Your task to perform on an android device: turn off notifications in google photos Image 0: 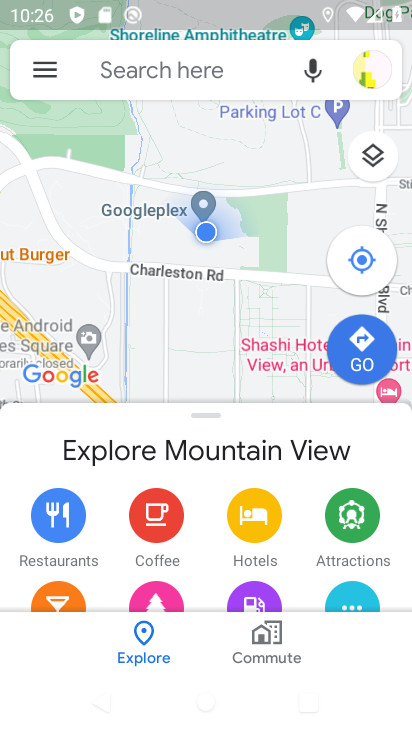
Step 0: click (126, 61)
Your task to perform on an android device: turn off notifications in google photos Image 1: 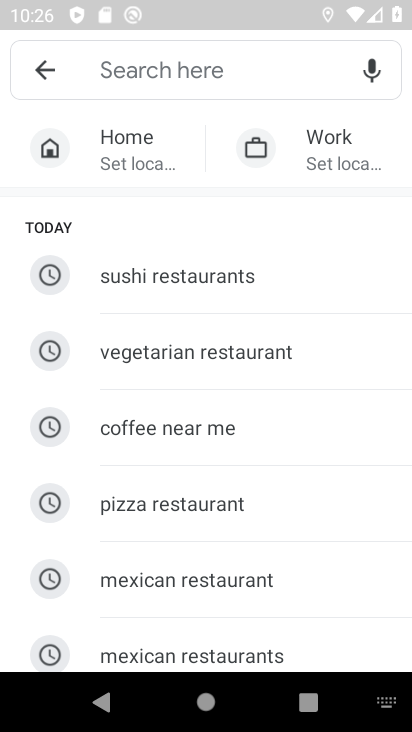
Step 1: click (25, 55)
Your task to perform on an android device: turn off notifications in google photos Image 2: 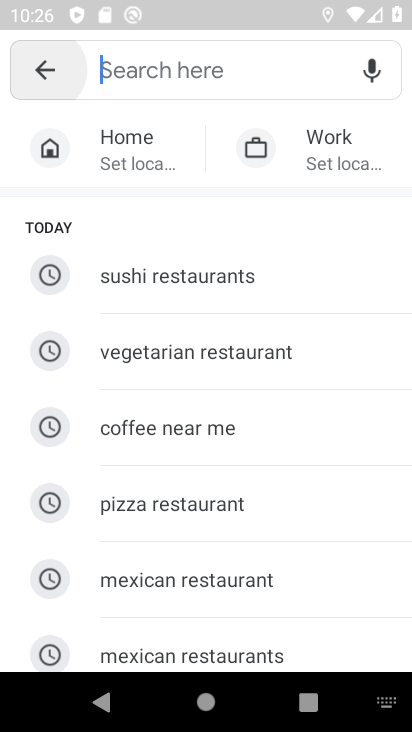
Step 2: click (39, 67)
Your task to perform on an android device: turn off notifications in google photos Image 3: 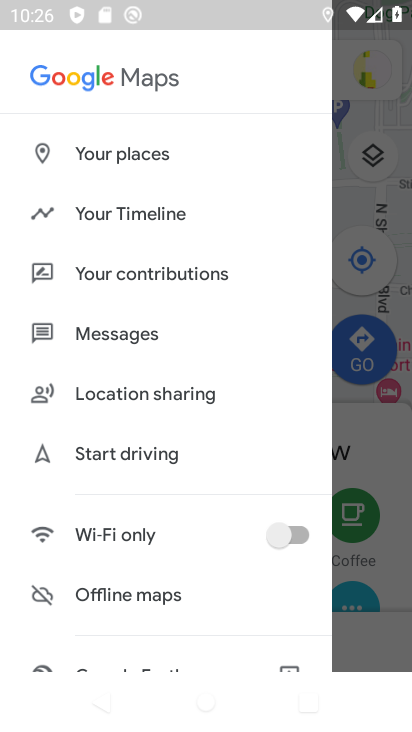
Step 3: click (399, 517)
Your task to perform on an android device: turn off notifications in google photos Image 4: 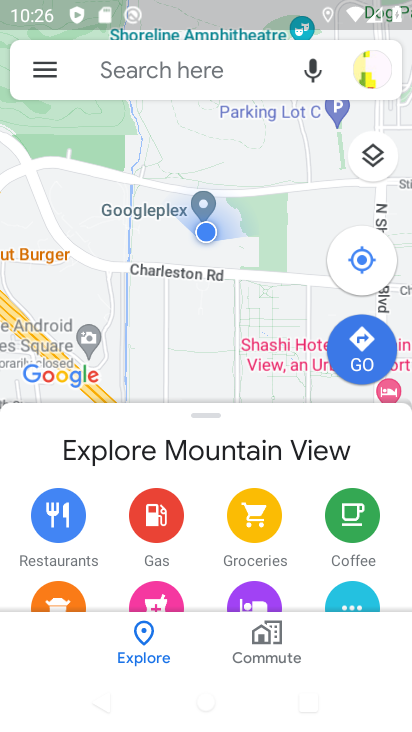
Step 4: press home button
Your task to perform on an android device: turn off notifications in google photos Image 5: 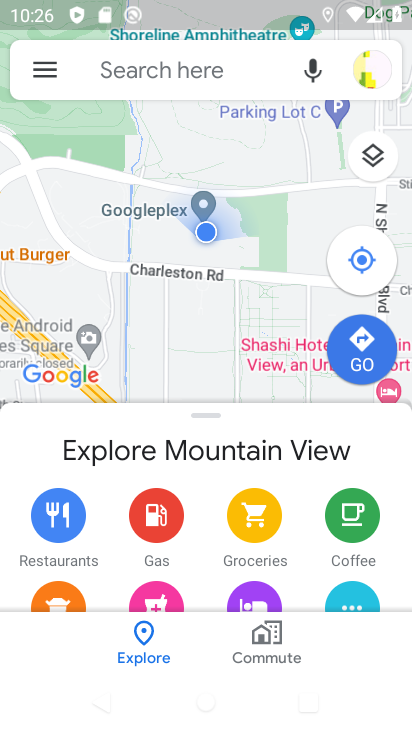
Step 5: press home button
Your task to perform on an android device: turn off notifications in google photos Image 6: 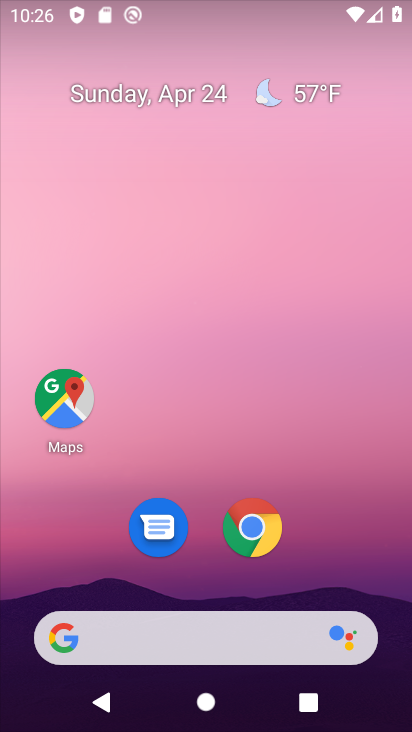
Step 6: press home button
Your task to perform on an android device: turn off notifications in google photos Image 7: 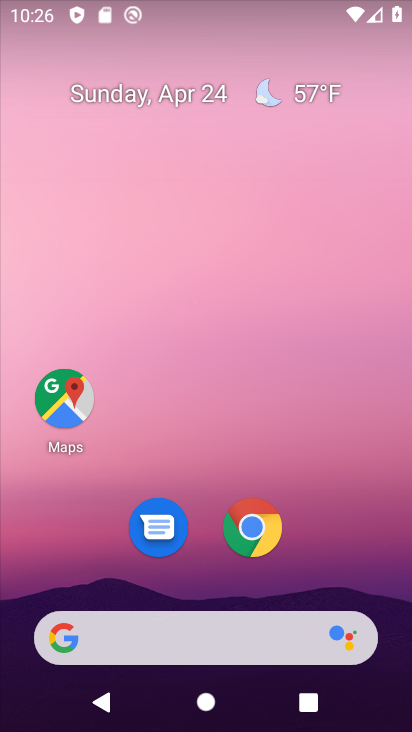
Step 7: drag from (256, 683) to (110, 14)
Your task to perform on an android device: turn off notifications in google photos Image 8: 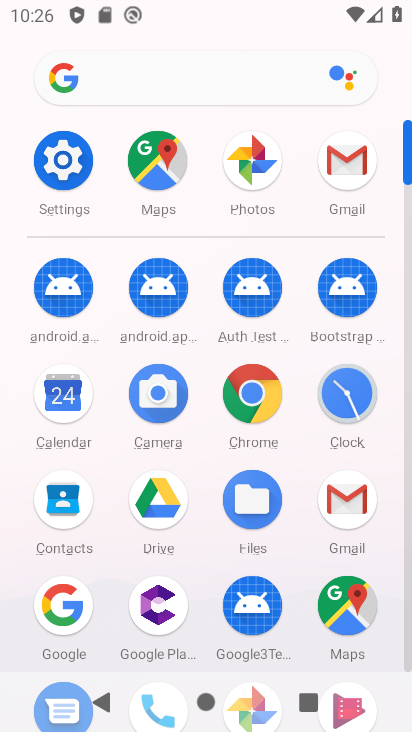
Step 8: drag from (277, 480) to (190, 51)
Your task to perform on an android device: turn off notifications in google photos Image 9: 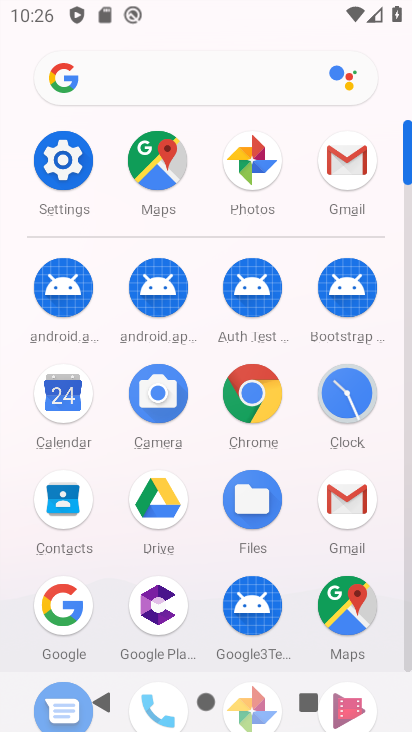
Step 9: drag from (286, 462) to (227, 21)
Your task to perform on an android device: turn off notifications in google photos Image 10: 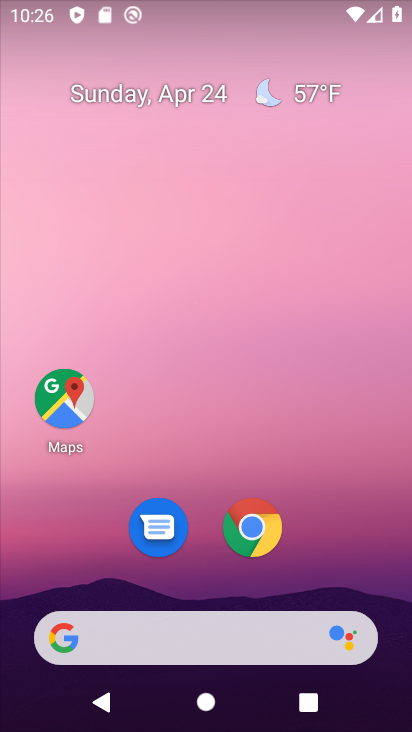
Step 10: drag from (274, 642) to (240, 57)
Your task to perform on an android device: turn off notifications in google photos Image 11: 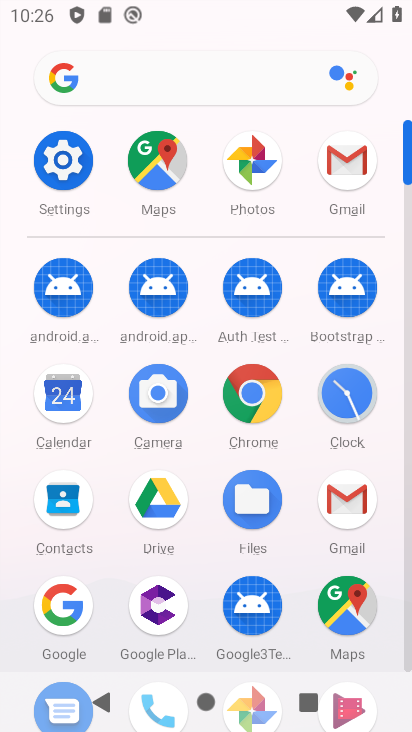
Step 11: drag from (312, 467) to (219, 170)
Your task to perform on an android device: turn off notifications in google photos Image 12: 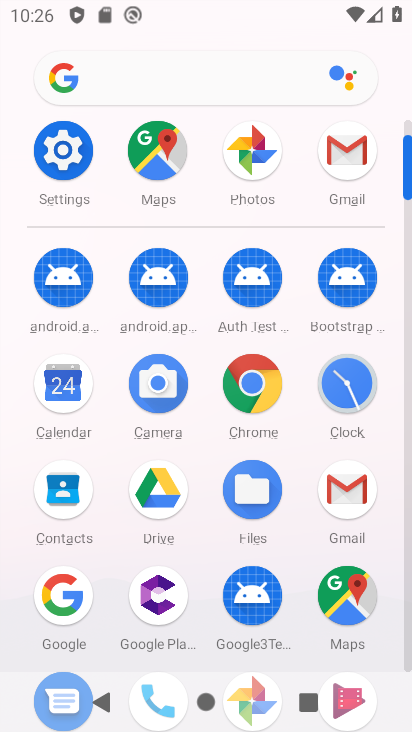
Step 12: click (251, 158)
Your task to perform on an android device: turn off notifications in google photos Image 13: 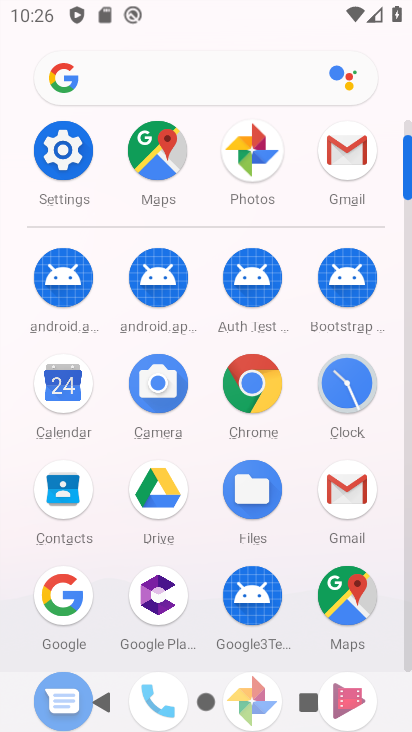
Step 13: click (259, 164)
Your task to perform on an android device: turn off notifications in google photos Image 14: 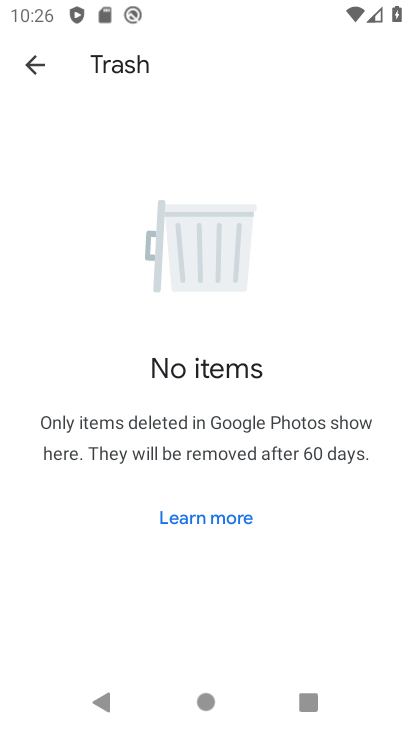
Step 14: click (30, 60)
Your task to perform on an android device: turn off notifications in google photos Image 15: 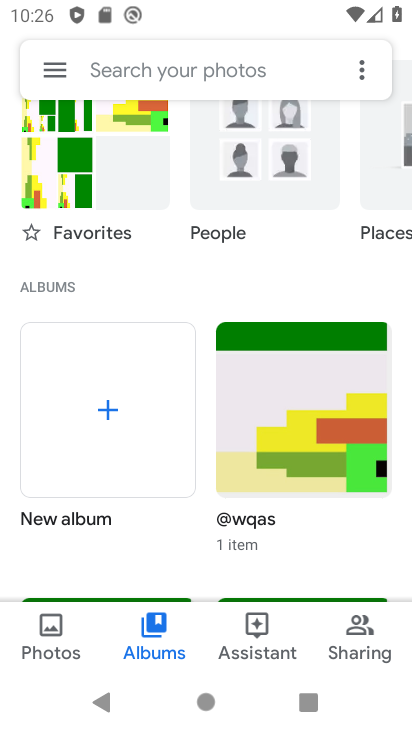
Step 15: press home button
Your task to perform on an android device: turn off notifications in google photos Image 16: 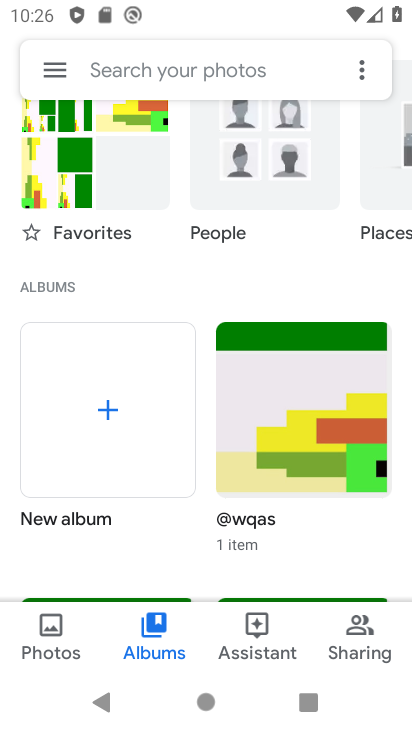
Step 16: press home button
Your task to perform on an android device: turn off notifications in google photos Image 17: 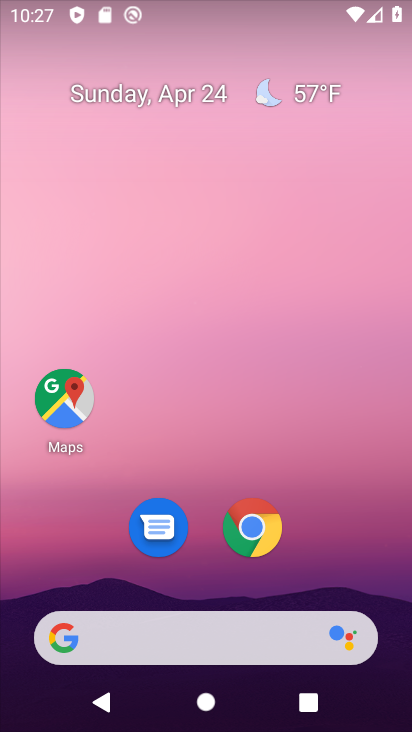
Step 17: drag from (267, 664) to (101, 30)
Your task to perform on an android device: turn off notifications in google photos Image 18: 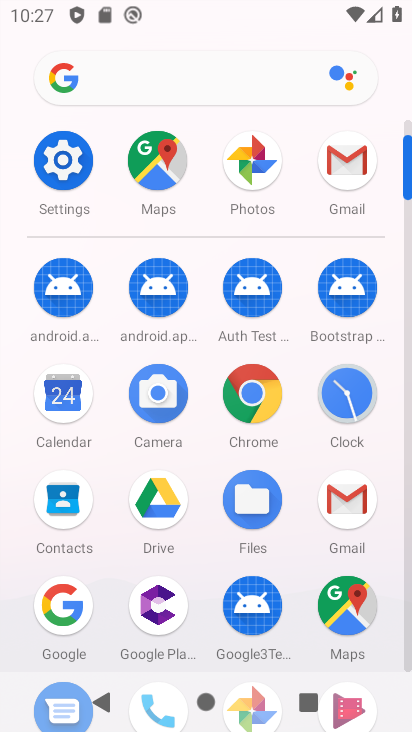
Step 18: click (259, 158)
Your task to perform on an android device: turn off notifications in google photos Image 19: 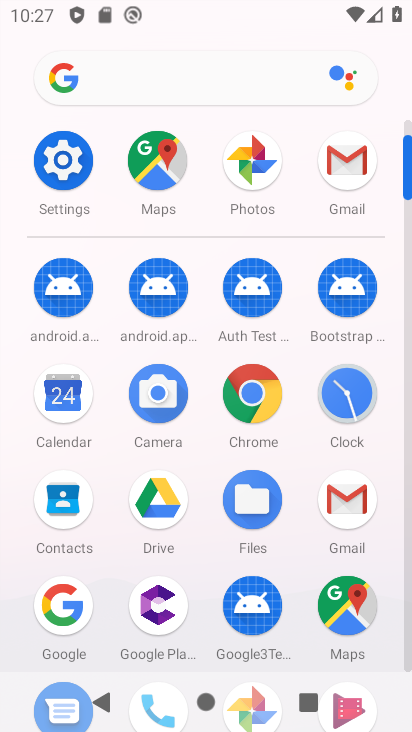
Step 19: click (259, 158)
Your task to perform on an android device: turn off notifications in google photos Image 20: 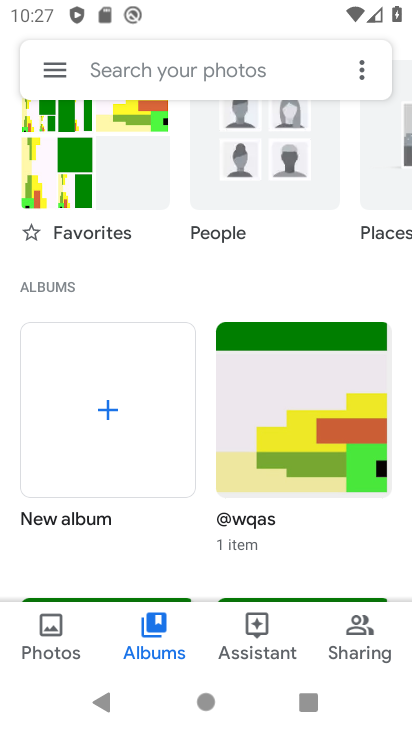
Step 20: drag from (221, 506) to (144, 25)
Your task to perform on an android device: turn off notifications in google photos Image 21: 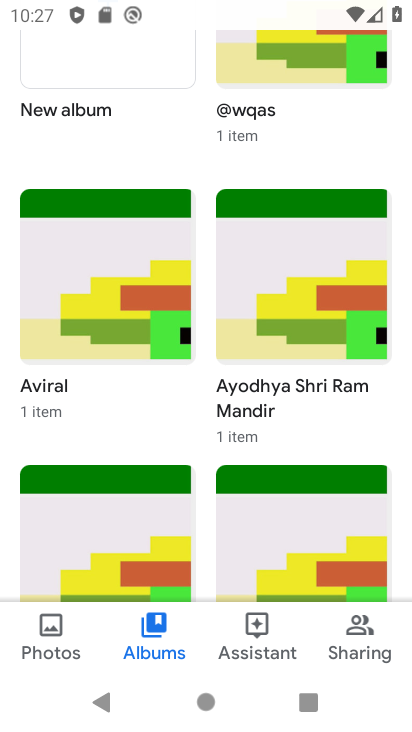
Step 21: drag from (212, 317) to (176, 48)
Your task to perform on an android device: turn off notifications in google photos Image 22: 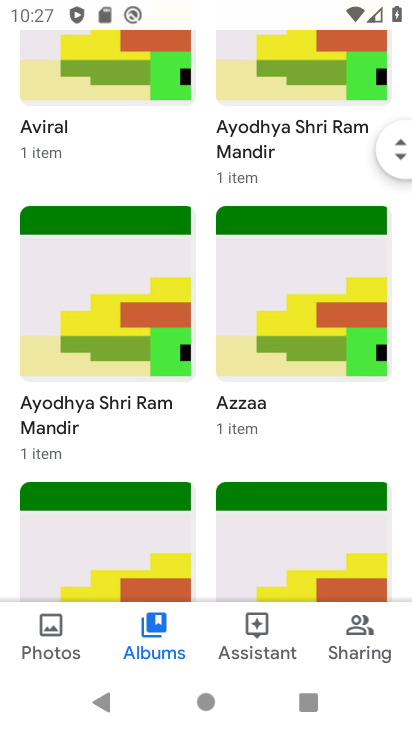
Step 22: drag from (237, 433) to (201, 195)
Your task to perform on an android device: turn off notifications in google photos Image 23: 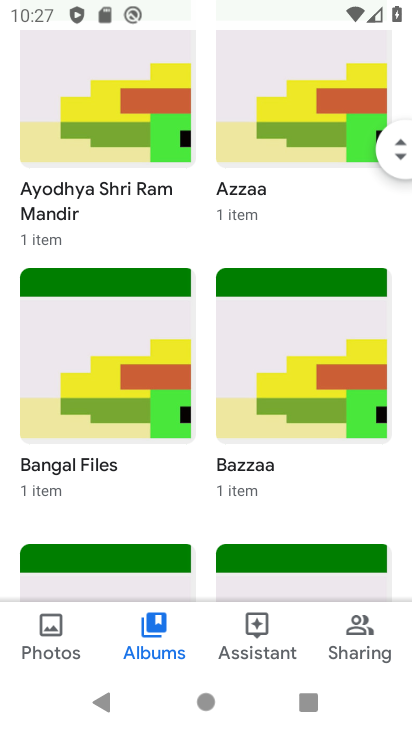
Step 23: drag from (212, 358) to (173, 71)
Your task to perform on an android device: turn off notifications in google photos Image 24: 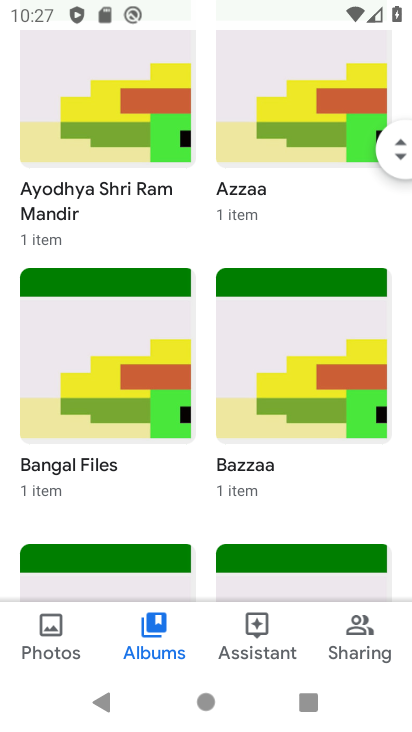
Step 24: drag from (202, 395) to (160, 38)
Your task to perform on an android device: turn off notifications in google photos Image 25: 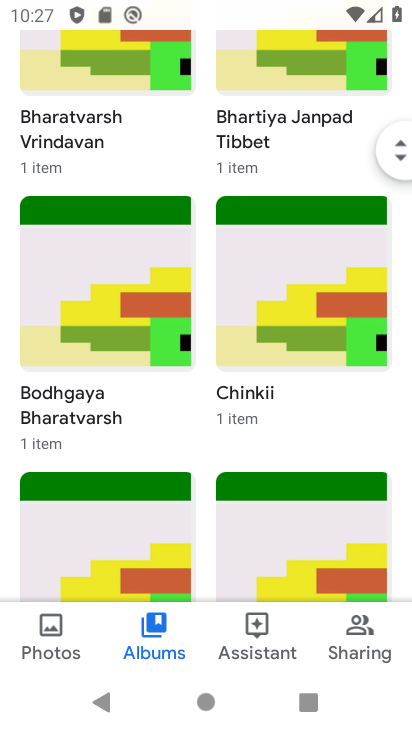
Step 25: drag from (174, 297) to (255, 574)
Your task to perform on an android device: turn off notifications in google photos Image 26: 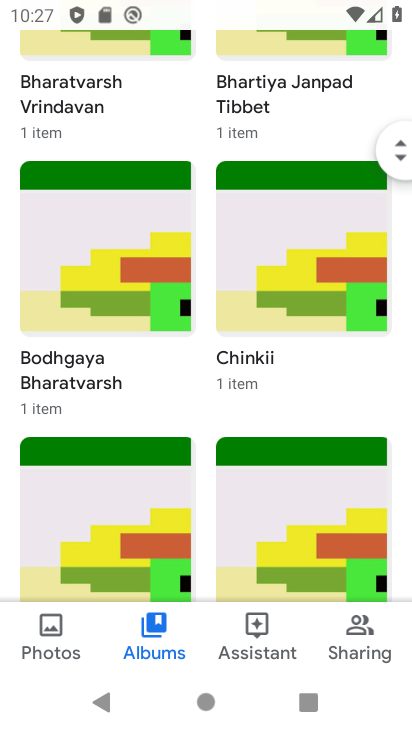
Step 26: press home button
Your task to perform on an android device: turn off notifications in google photos Image 27: 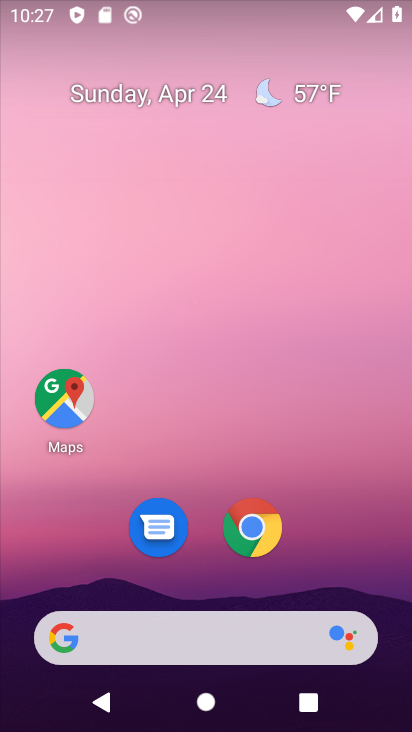
Step 27: drag from (232, 642) to (123, 1)
Your task to perform on an android device: turn off notifications in google photos Image 28: 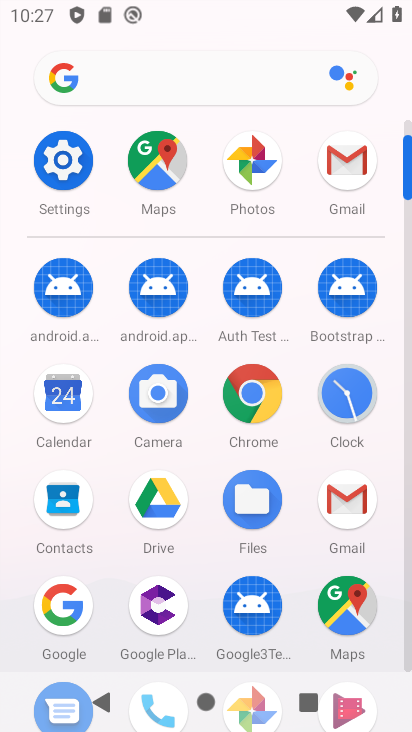
Step 28: click (247, 156)
Your task to perform on an android device: turn off notifications in google photos Image 29: 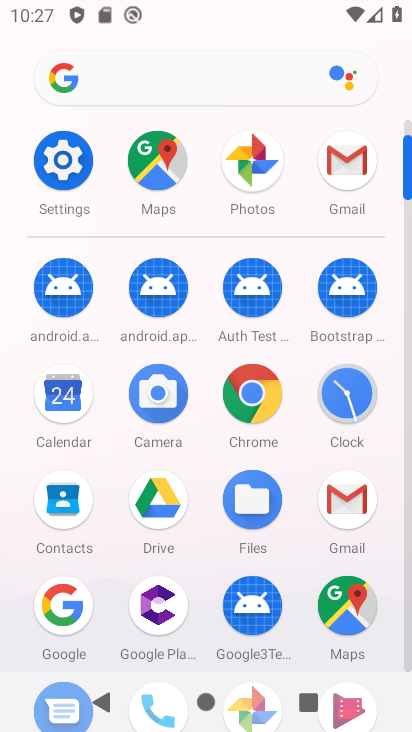
Step 29: click (254, 168)
Your task to perform on an android device: turn off notifications in google photos Image 30: 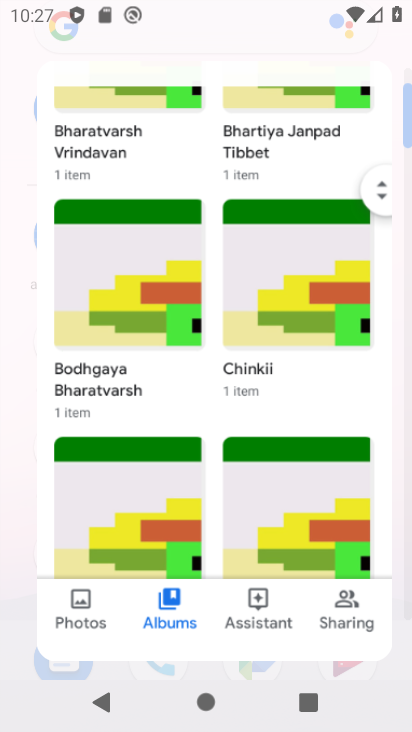
Step 30: click (256, 169)
Your task to perform on an android device: turn off notifications in google photos Image 31: 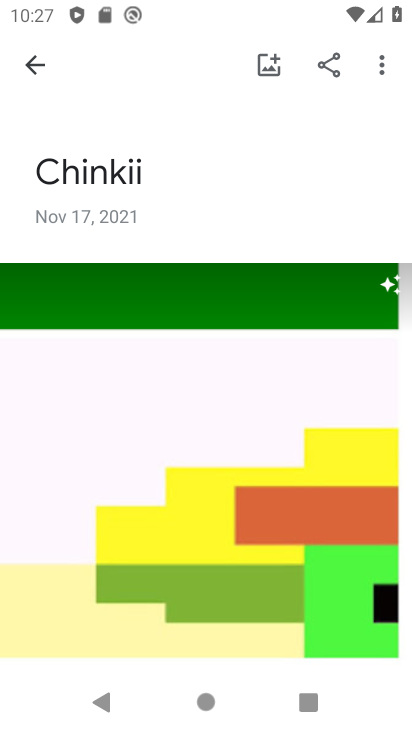
Step 31: click (26, 55)
Your task to perform on an android device: turn off notifications in google photos Image 32: 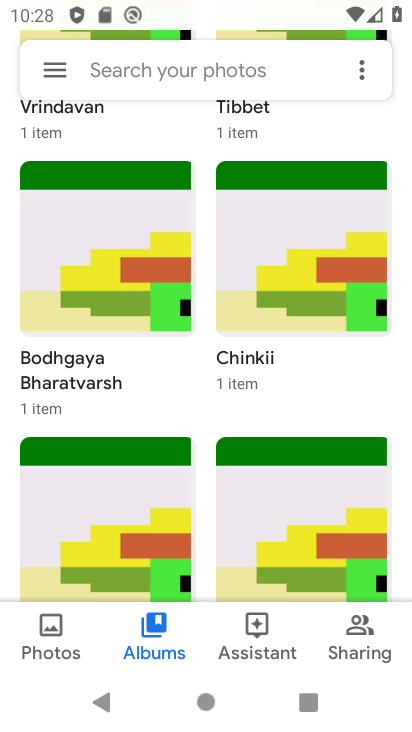
Step 32: press home button
Your task to perform on an android device: turn off notifications in google photos Image 33: 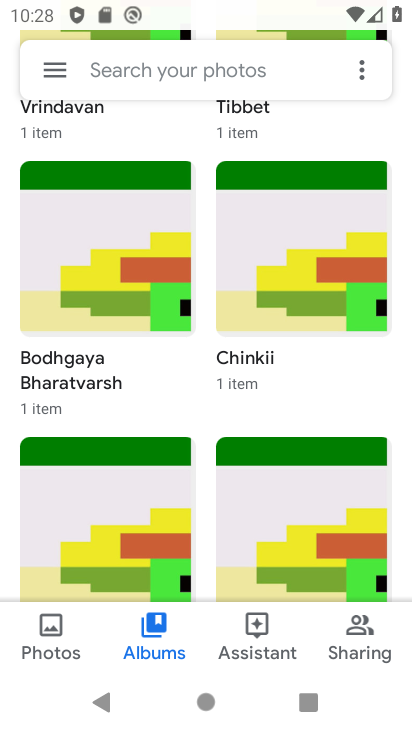
Step 33: press home button
Your task to perform on an android device: turn off notifications in google photos Image 34: 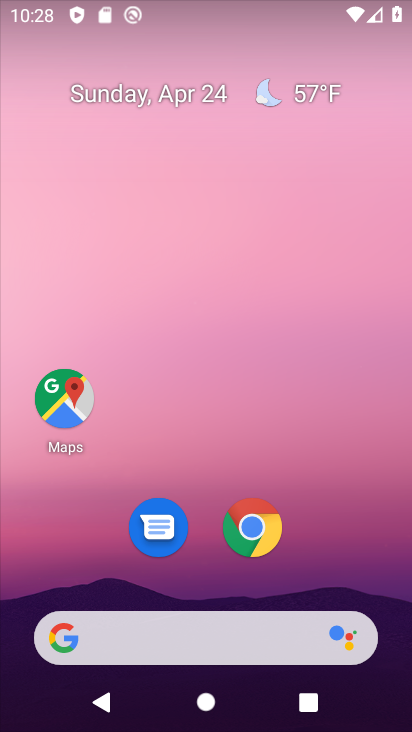
Step 34: drag from (201, 473) to (155, 89)
Your task to perform on an android device: turn off notifications in google photos Image 35: 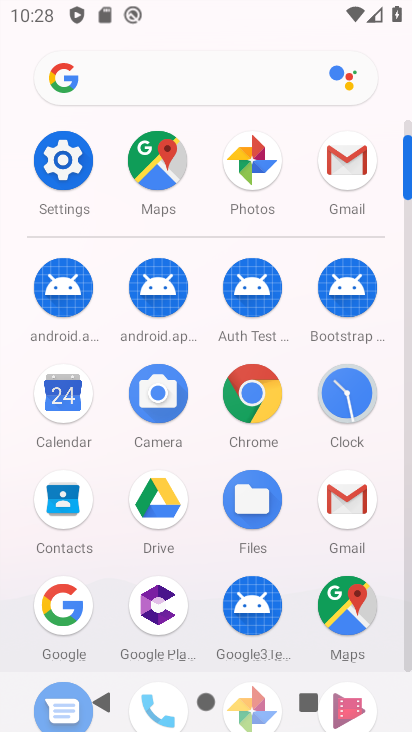
Step 35: click (249, 163)
Your task to perform on an android device: turn off notifications in google photos Image 36: 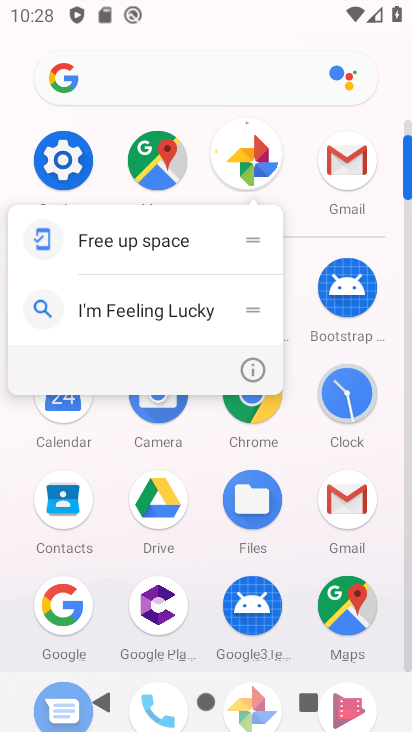
Step 36: click (246, 169)
Your task to perform on an android device: turn off notifications in google photos Image 37: 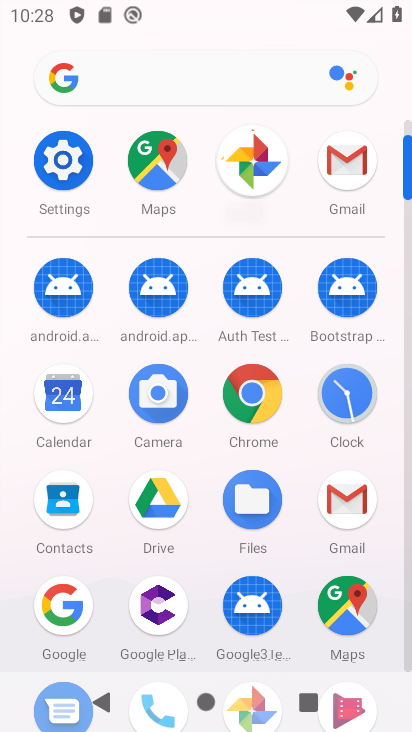
Step 37: click (248, 167)
Your task to perform on an android device: turn off notifications in google photos Image 38: 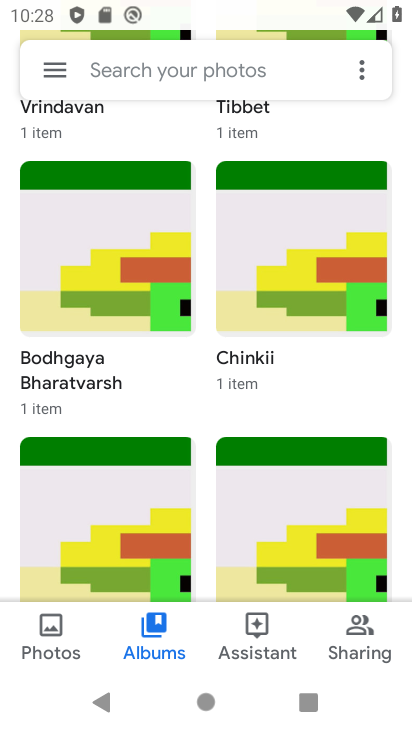
Step 38: drag from (57, 78) to (73, 440)
Your task to perform on an android device: turn off notifications in google photos Image 39: 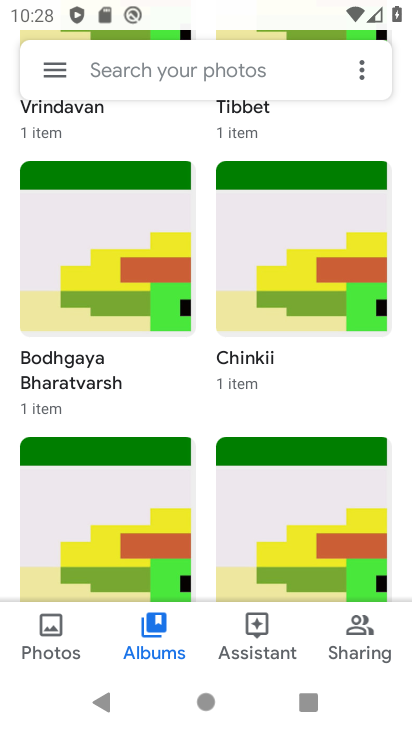
Step 39: drag from (49, 74) to (82, 250)
Your task to perform on an android device: turn off notifications in google photos Image 40: 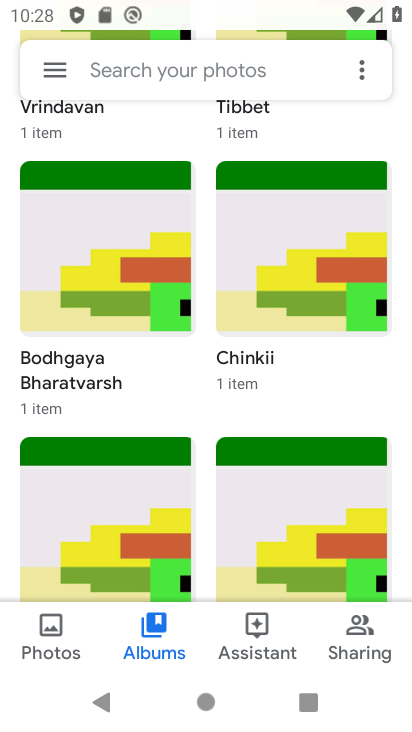
Step 40: click (55, 80)
Your task to perform on an android device: turn off notifications in google photos Image 41: 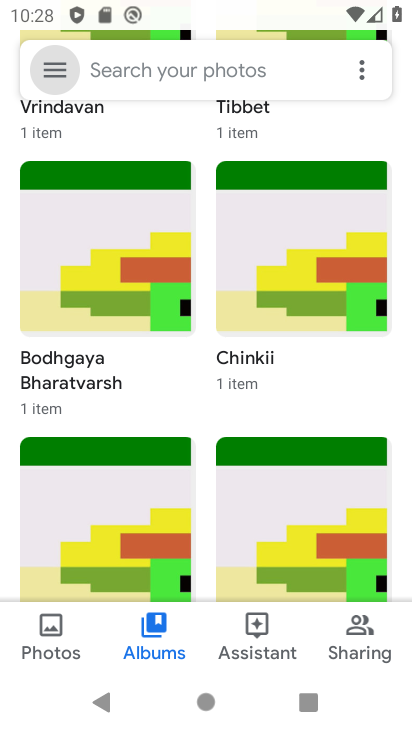
Step 41: drag from (55, 80) to (91, 390)
Your task to perform on an android device: turn off notifications in google photos Image 42: 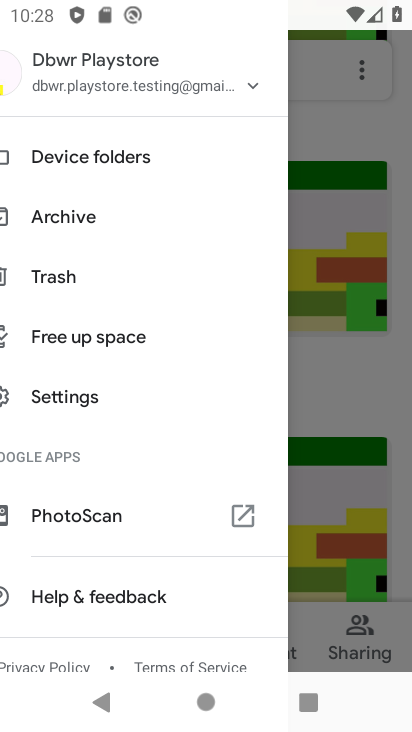
Step 42: click (97, 391)
Your task to perform on an android device: turn off notifications in google photos Image 43: 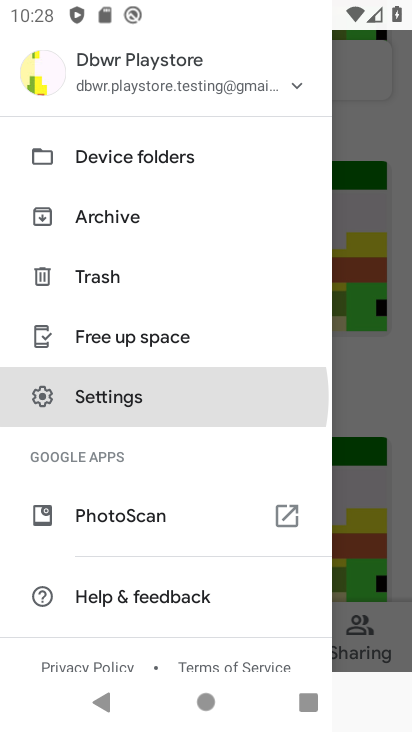
Step 43: click (97, 391)
Your task to perform on an android device: turn off notifications in google photos Image 44: 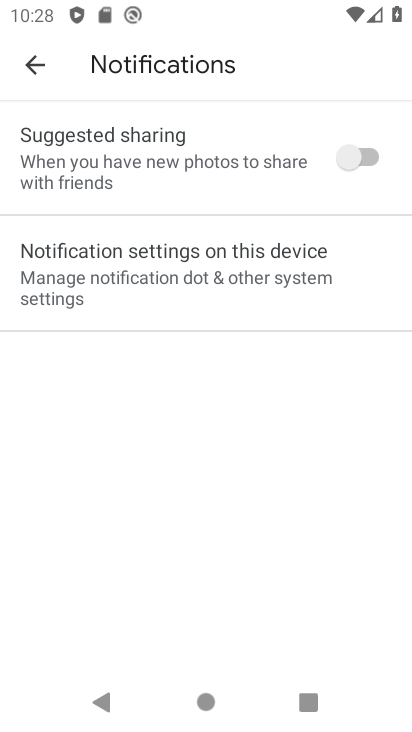
Step 44: click (131, 270)
Your task to perform on an android device: turn off notifications in google photos Image 45: 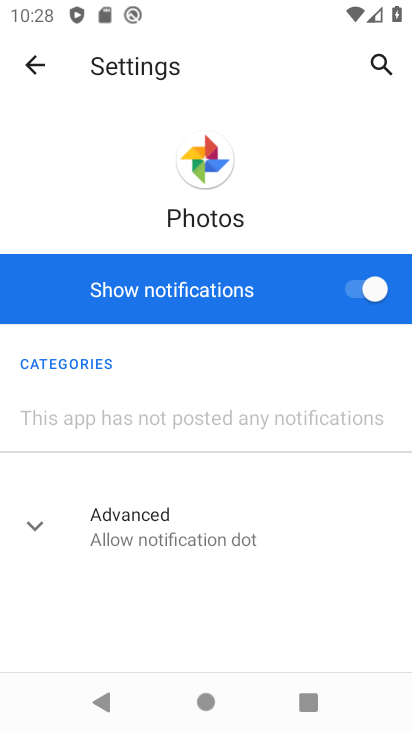
Step 45: click (368, 292)
Your task to perform on an android device: turn off notifications in google photos Image 46: 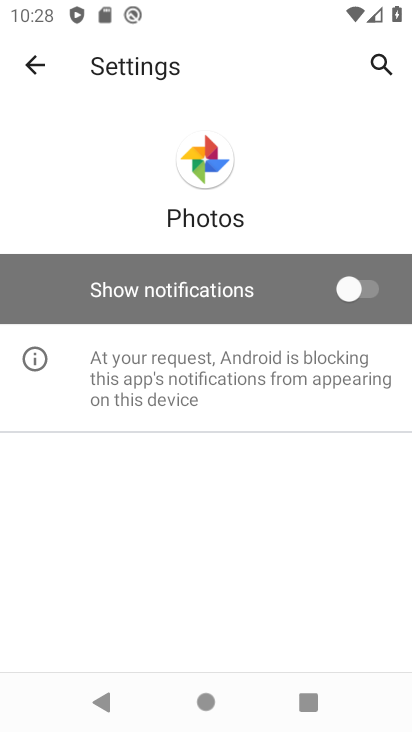
Step 46: task complete